Your task to perform on an android device: turn on sleep mode Image 0: 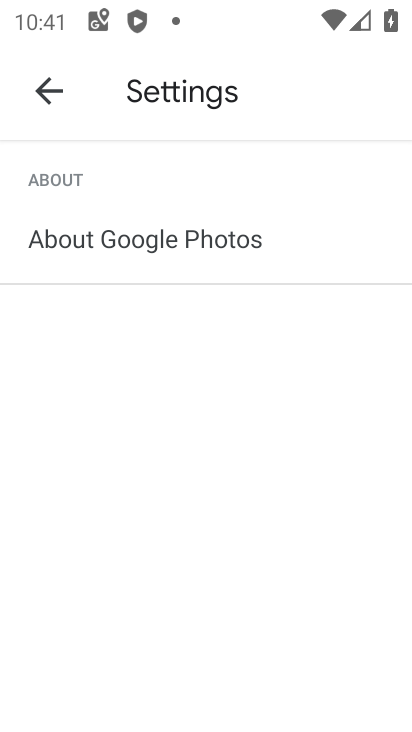
Step 0: press home button
Your task to perform on an android device: turn on sleep mode Image 1: 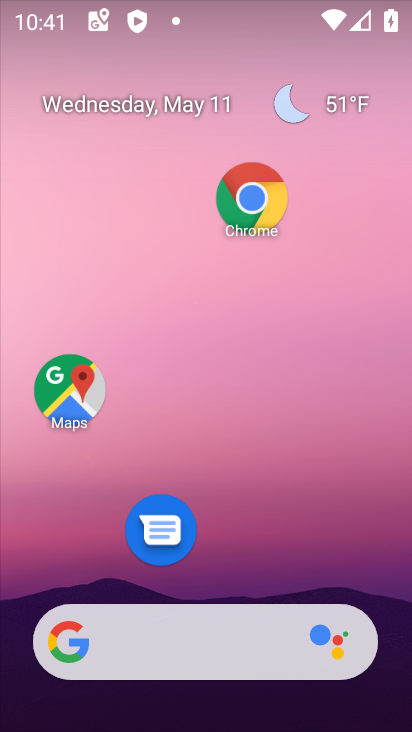
Step 1: drag from (308, 560) to (235, 98)
Your task to perform on an android device: turn on sleep mode Image 2: 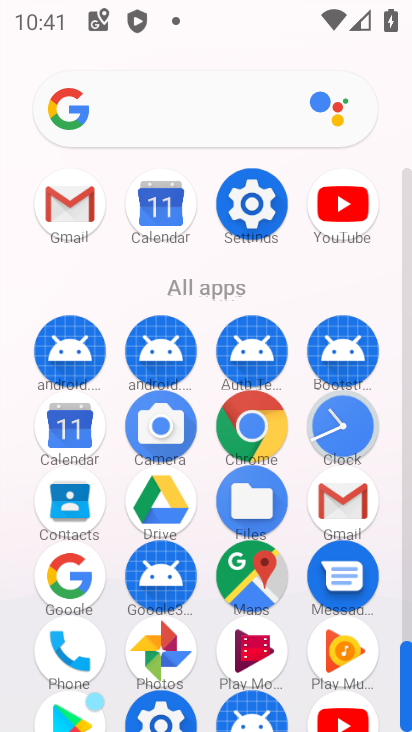
Step 2: drag from (283, 651) to (318, 465)
Your task to perform on an android device: turn on sleep mode Image 3: 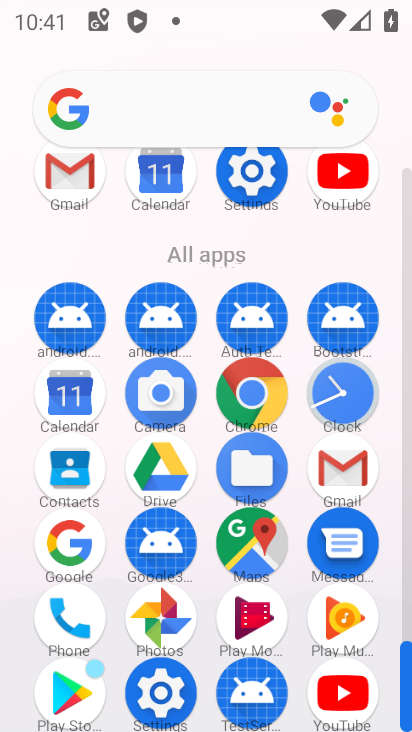
Step 3: click (251, 180)
Your task to perform on an android device: turn on sleep mode Image 4: 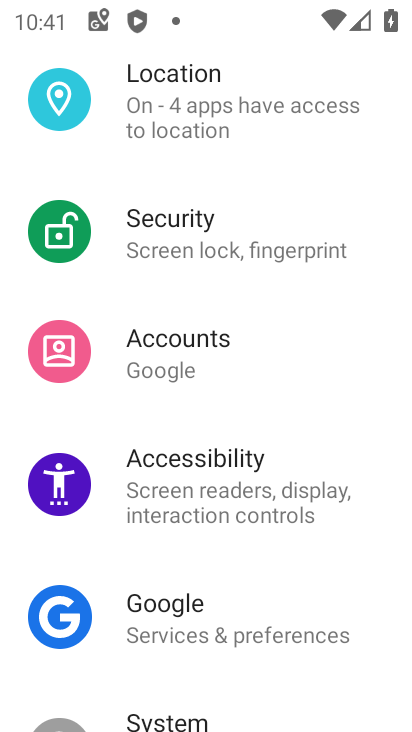
Step 4: task complete